Your task to perform on an android device: turn off notifications settings in the gmail app Image 0: 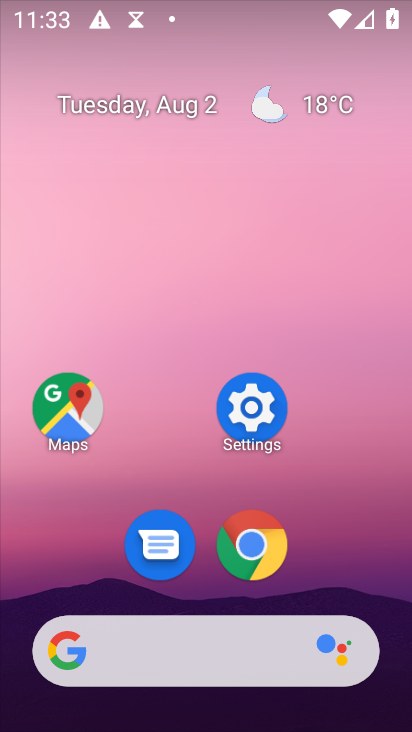
Step 0: drag from (191, 629) to (227, 177)
Your task to perform on an android device: turn off notifications settings in the gmail app Image 1: 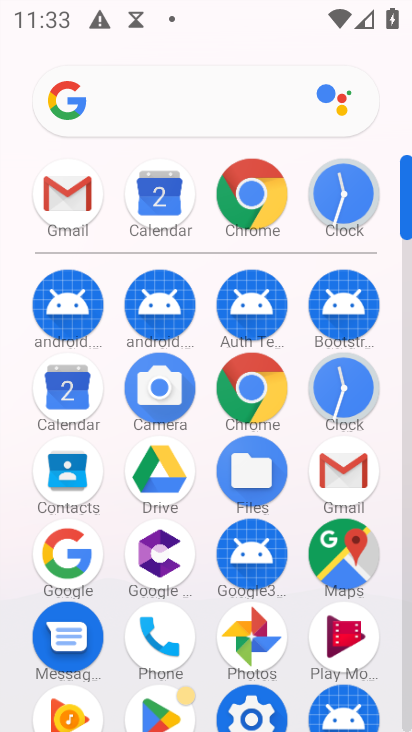
Step 1: click (61, 196)
Your task to perform on an android device: turn off notifications settings in the gmail app Image 2: 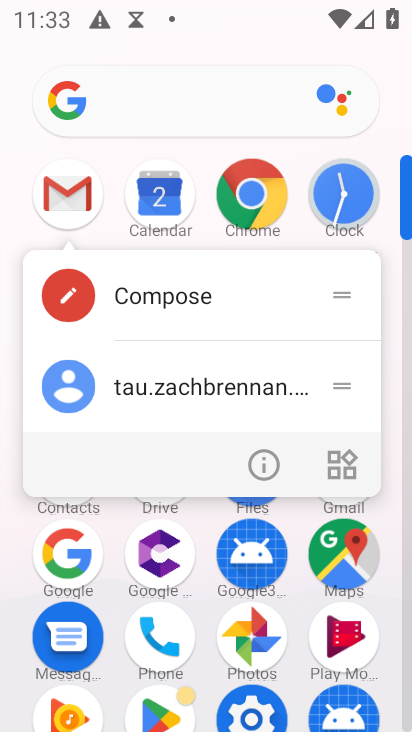
Step 2: click (78, 191)
Your task to perform on an android device: turn off notifications settings in the gmail app Image 3: 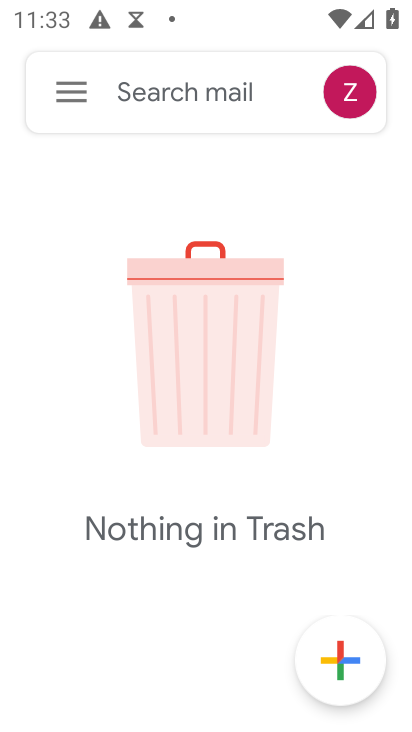
Step 3: click (77, 85)
Your task to perform on an android device: turn off notifications settings in the gmail app Image 4: 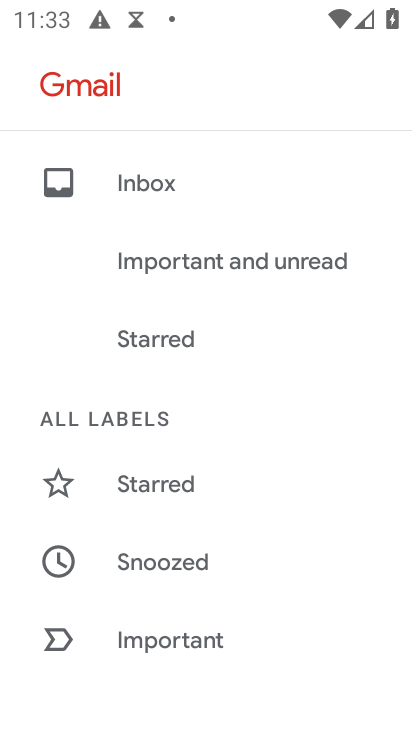
Step 4: drag from (260, 602) to (322, 31)
Your task to perform on an android device: turn off notifications settings in the gmail app Image 5: 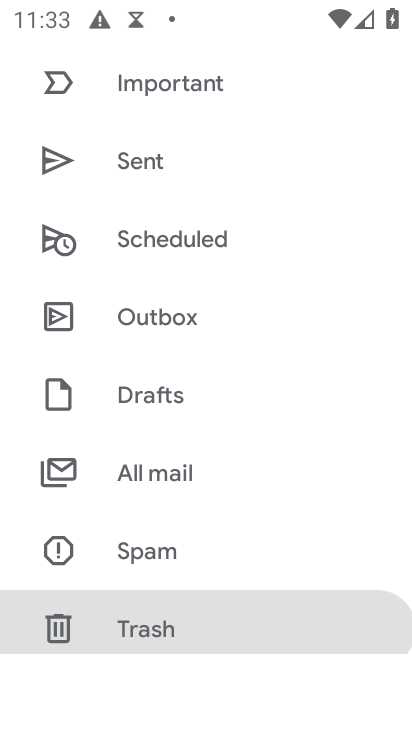
Step 5: drag from (296, 536) to (331, 93)
Your task to perform on an android device: turn off notifications settings in the gmail app Image 6: 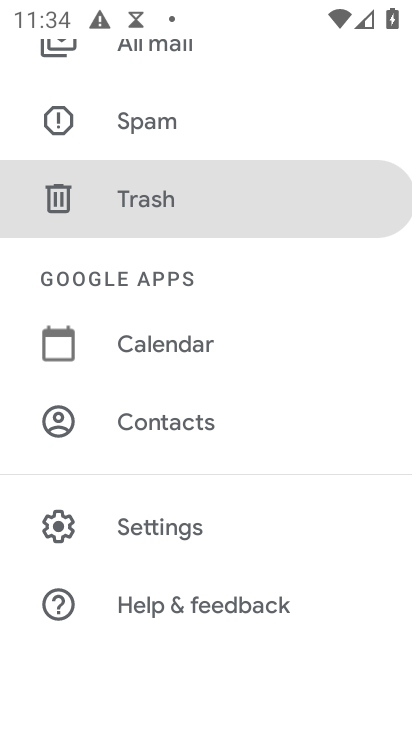
Step 6: click (150, 523)
Your task to perform on an android device: turn off notifications settings in the gmail app Image 7: 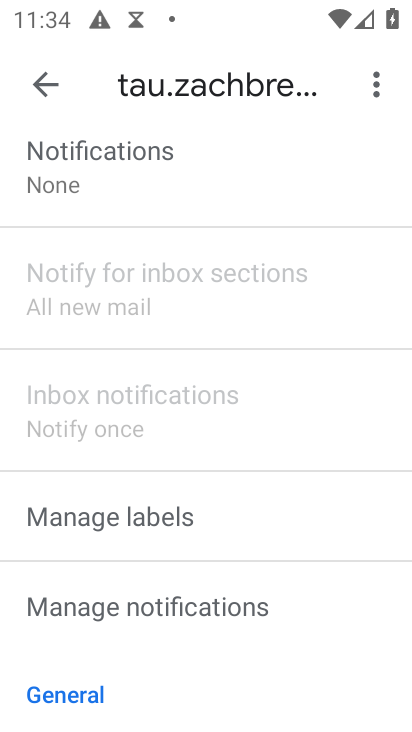
Step 7: click (121, 166)
Your task to perform on an android device: turn off notifications settings in the gmail app Image 8: 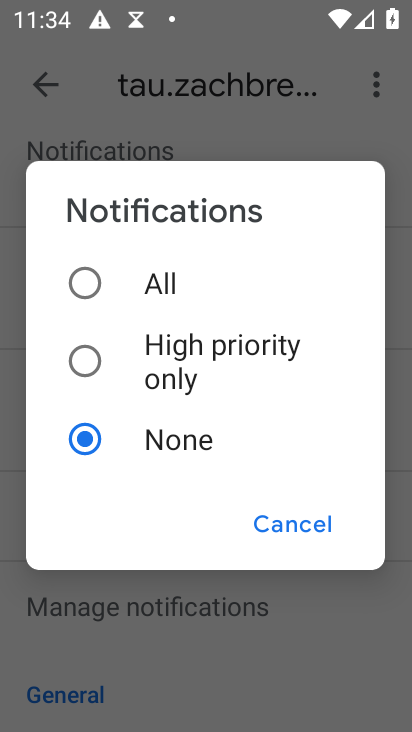
Step 8: click (80, 287)
Your task to perform on an android device: turn off notifications settings in the gmail app Image 9: 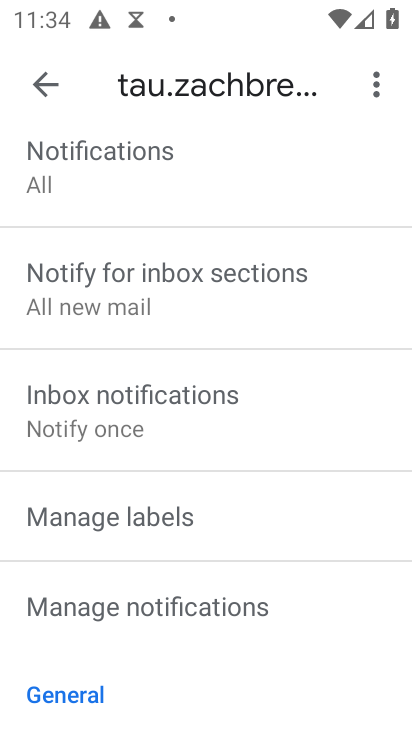
Step 9: task complete